Your task to perform on an android device: Go to calendar. Show me events next week Image 0: 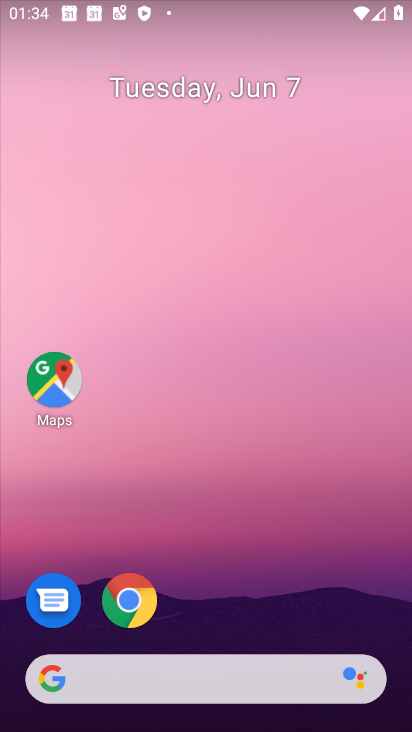
Step 0: drag from (193, 721) to (171, 37)
Your task to perform on an android device: Go to calendar. Show me events next week Image 1: 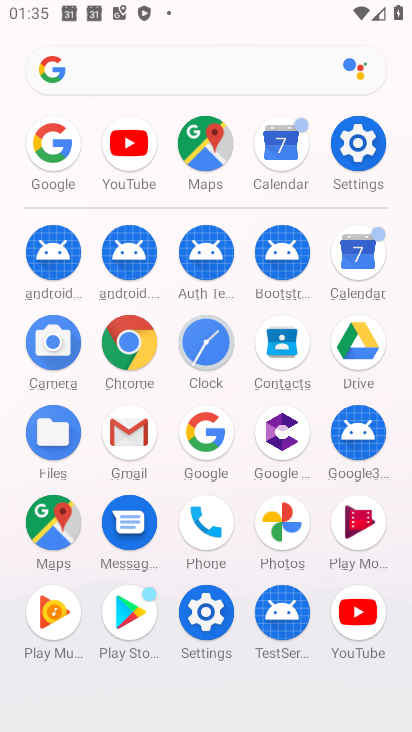
Step 1: click (356, 248)
Your task to perform on an android device: Go to calendar. Show me events next week Image 2: 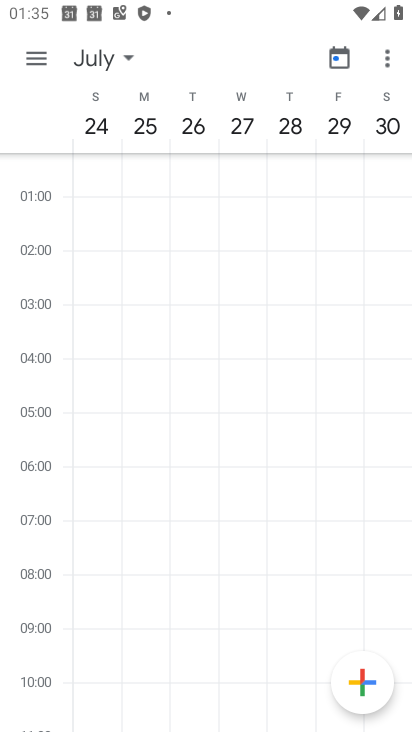
Step 2: click (125, 53)
Your task to perform on an android device: Go to calendar. Show me events next week Image 3: 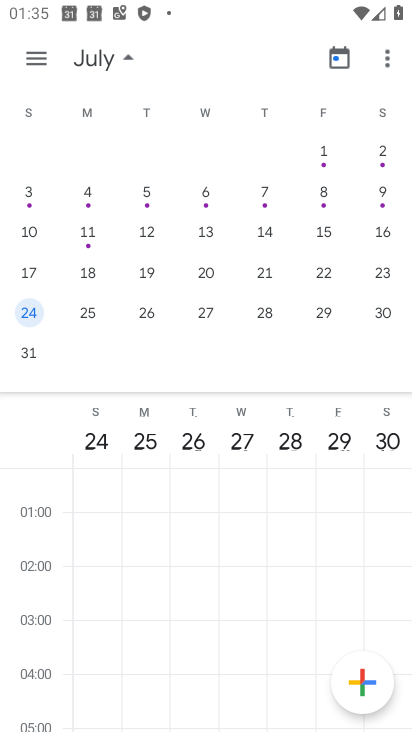
Step 3: drag from (62, 248) to (377, 241)
Your task to perform on an android device: Go to calendar. Show me events next week Image 4: 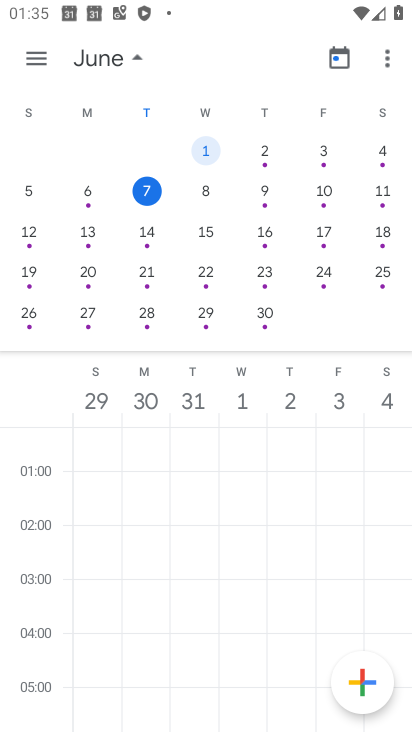
Step 4: click (83, 230)
Your task to perform on an android device: Go to calendar. Show me events next week Image 5: 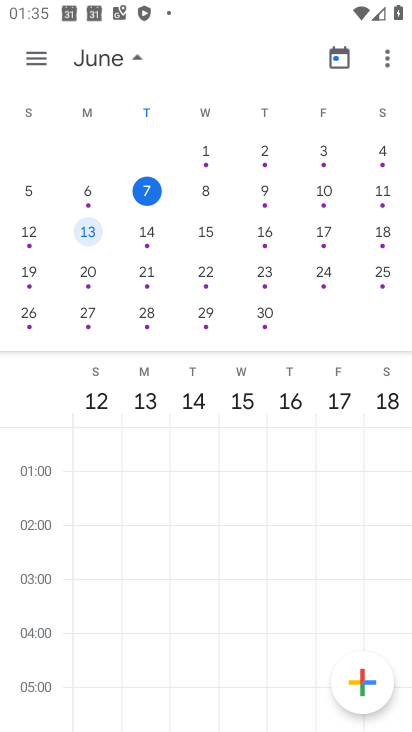
Step 5: click (86, 230)
Your task to perform on an android device: Go to calendar. Show me events next week Image 6: 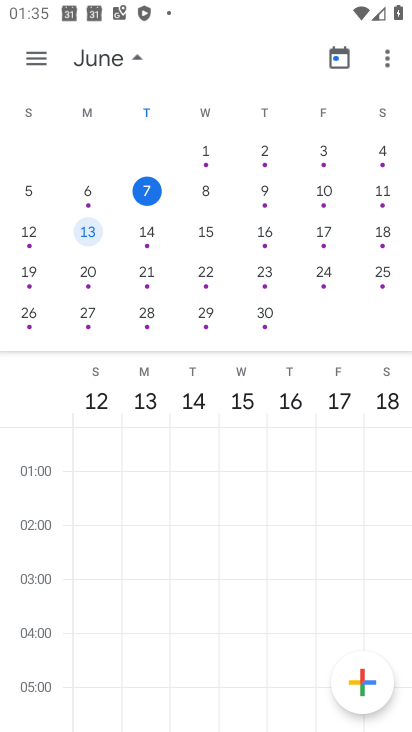
Step 6: click (36, 57)
Your task to perform on an android device: Go to calendar. Show me events next week Image 7: 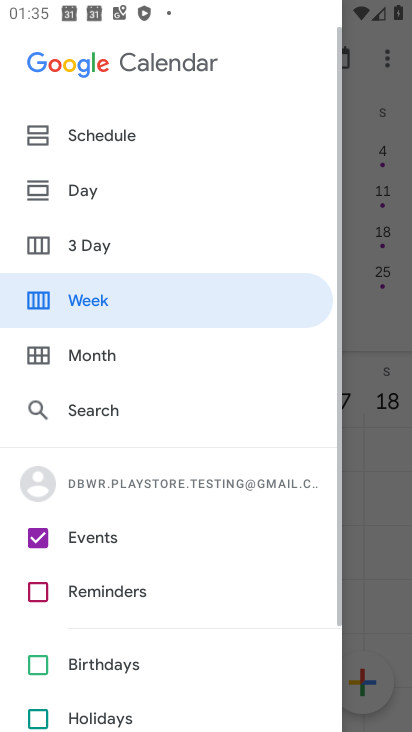
Step 7: click (90, 298)
Your task to perform on an android device: Go to calendar. Show me events next week Image 8: 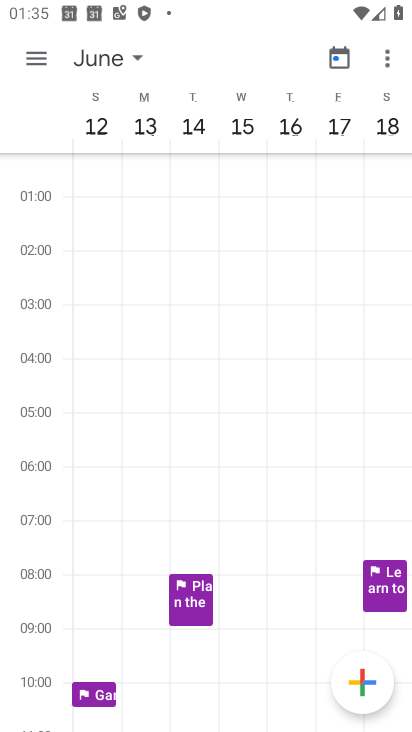
Step 8: task complete